Your task to perform on an android device: Open privacy settings Image 0: 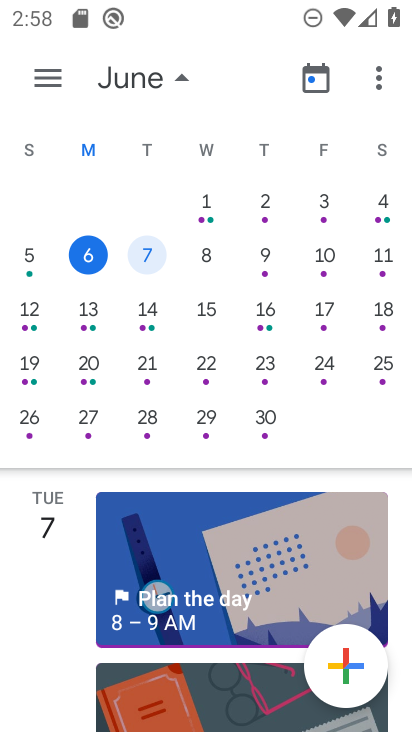
Step 0: press home button
Your task to perform on an android device: Open privacy settings Image 1: 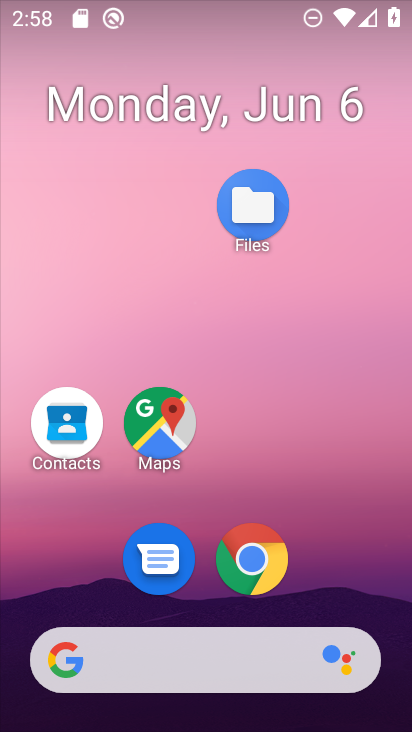
Step 1: drag from (236, 606) to (319, 73)
Your task to perform on an android device: Open privacy settings Image 2: 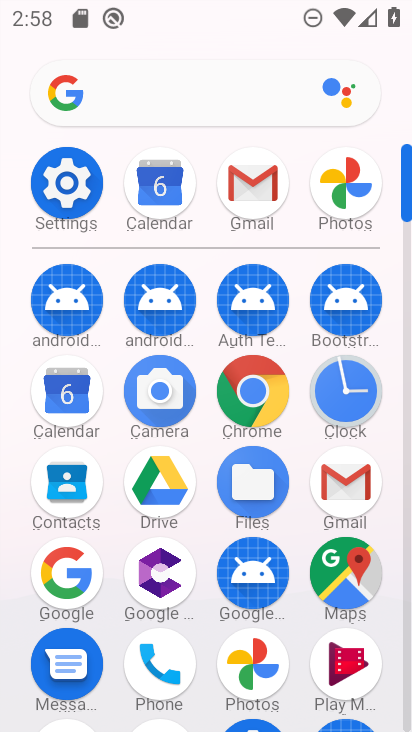
Step 2: click (80, 182)
Your task to perform on an android device: Open privacy settings Image 3: 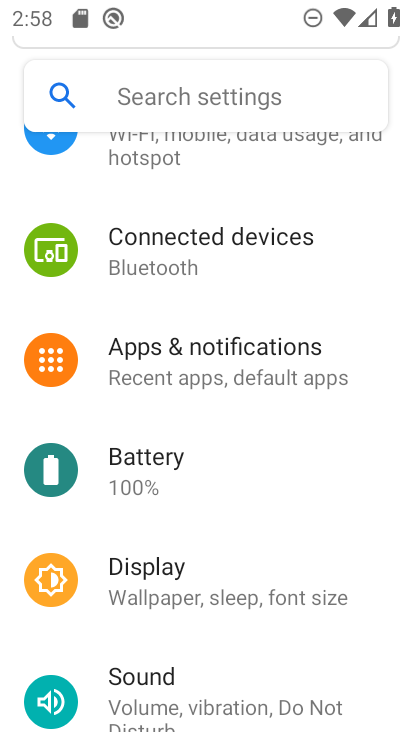
Step 3: drag from (165, 509) to (165, 154)
Your task to perform on an android device: Open privacy settings Image 4: 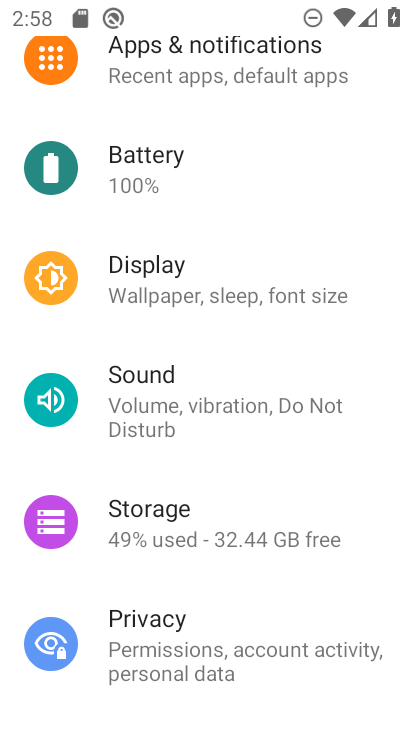
Step 4: click (155, 617)
Your task to perform on an android device: Open privacy settings Image 5: 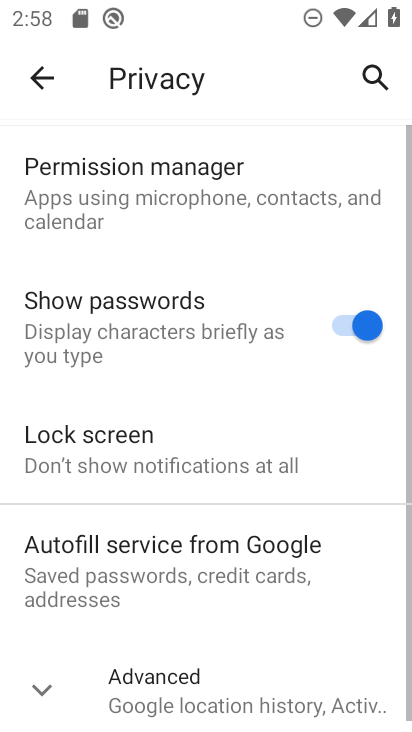
Step 5: task complete